Your task to perform on an android device: set the timer Image 0: 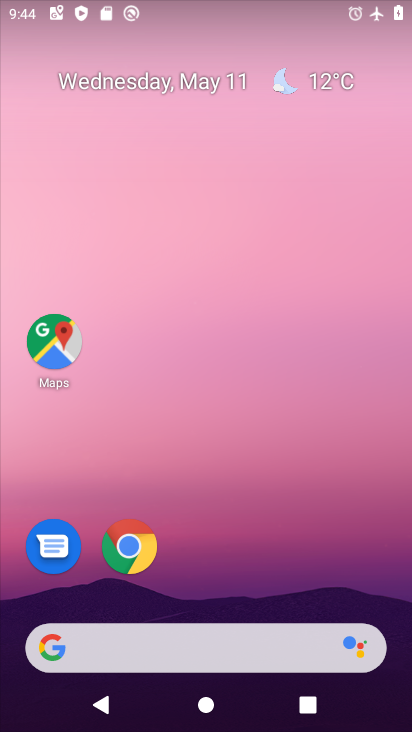
Step 0: drag from (397, 634) to (303, 112)
Your task to perform on an android device: set the timer Image 1: 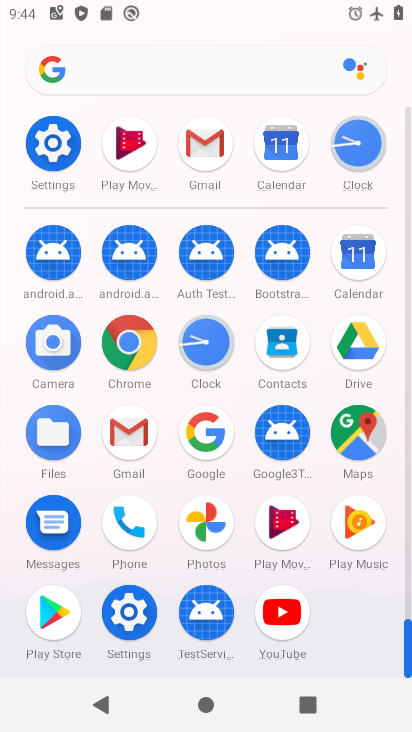
Step 1: click (207, 344)
Your task to perform on an android device: set the timer Image 2: 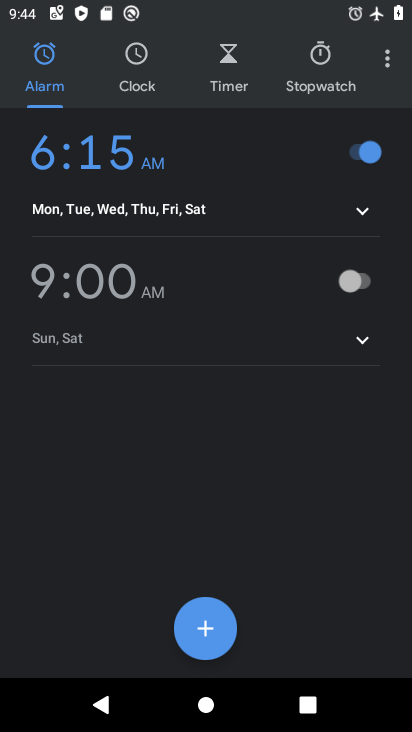
Step 2: click (232, 57)
Your task to perform on an android device: set the timer Image 3: 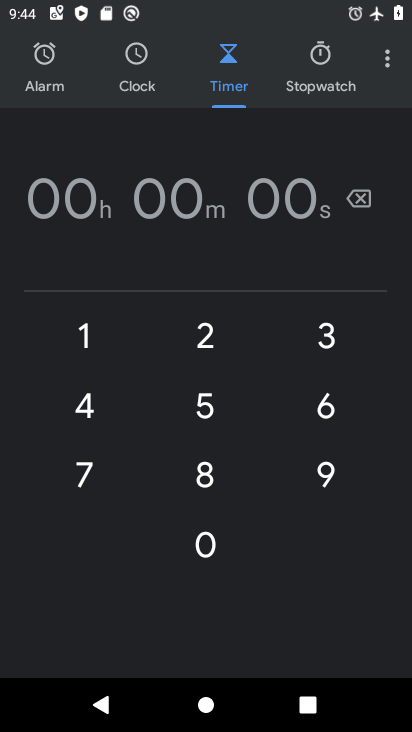
Step 3: click (93, 334)
Your task to perform on an android device: set the timer Image 4: 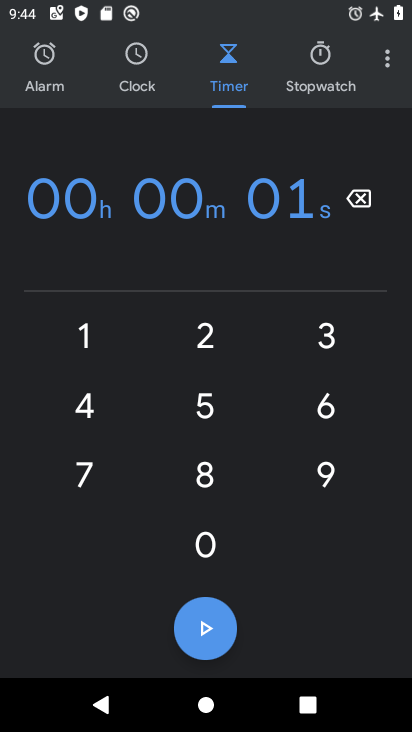
Step 4: click (321, 339)
Your task to perform on an android device: set the timer Image 5: 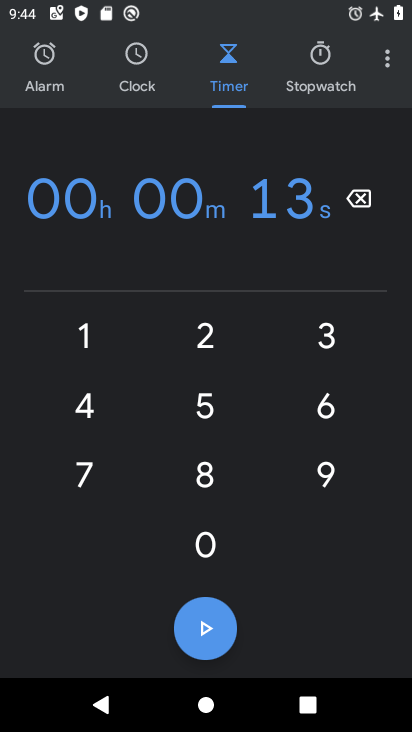
Step 5: click (201, 551)
Your task to perform on an android device: set the timer Image 6: 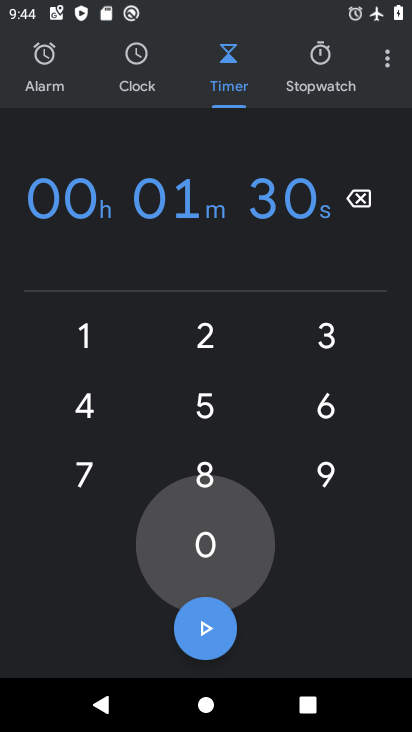
Step 6: click (201, 551)
Your task to perform on an android device: set the timer Image 7: 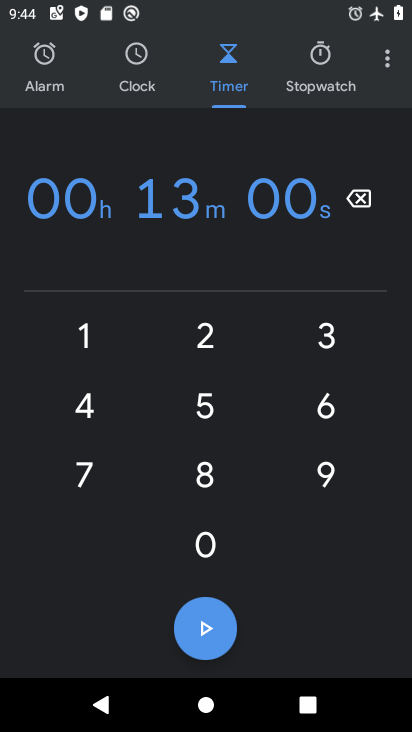
Step 7: click (201, 551)
Your task to perform on an android device: set the timer Image 8: 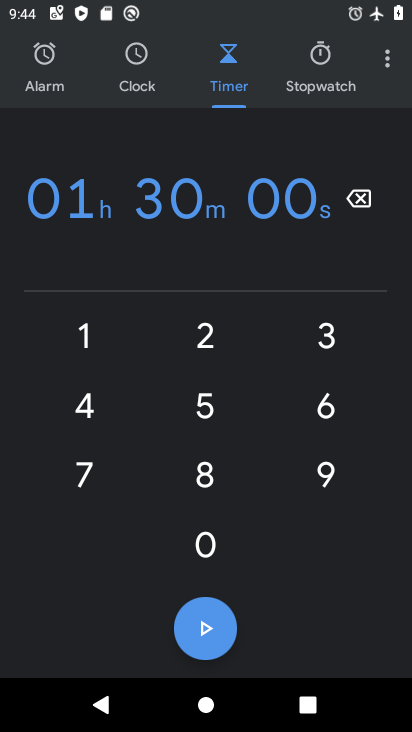
Step 8: task complete